Your task to perform on an android device: Open settings Image 0: 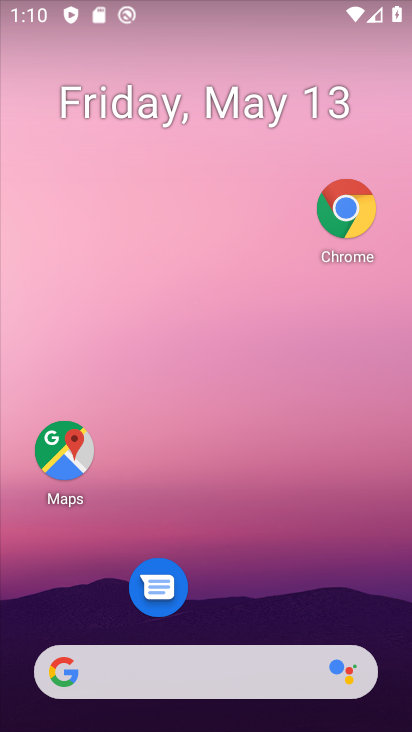
Step 0: drag from (219, 570) to (238, 65)
Your task to perform on an android device: Open settings Image 1: 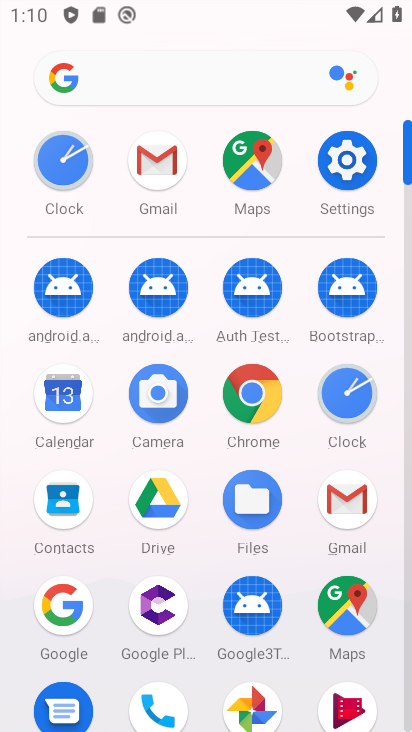
Step 1: click (355, 158)
Your task to perform on an android device: Open settings Image 2: 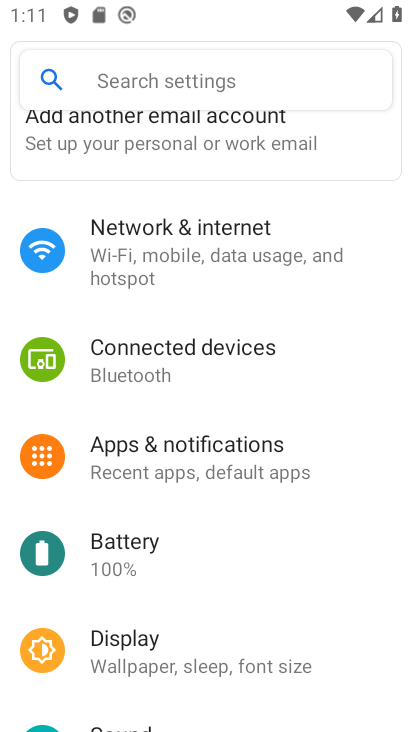
Step 2: task complete